Your task to perform on an android device: Search for pizza restaurants on Maps Image 0: 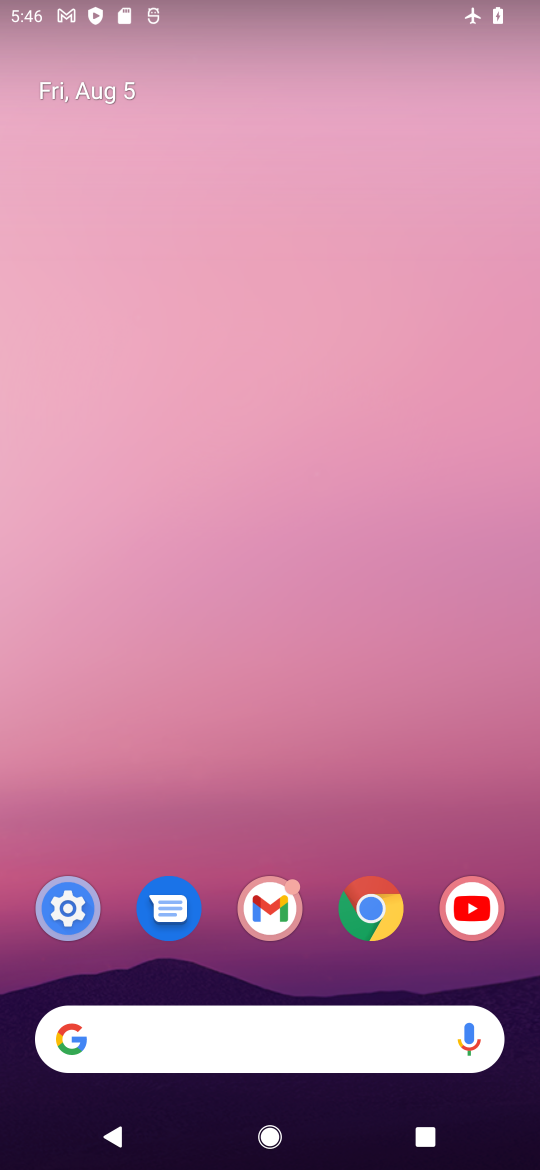
Step 0: drag from (324, 479) to (326, 262)
Your task to perform on an android device: Search for pizza restaurants on Maps Image 1: 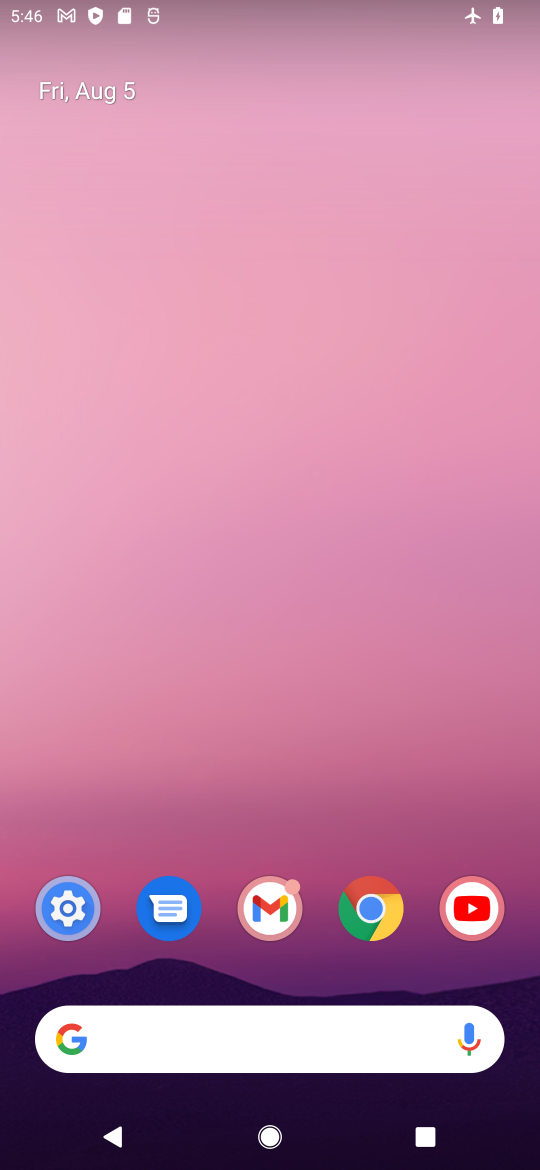
Step 1: drag from (246, 925) to (234, 385)
Your task to perform on an android device: Search for pizza restaurants on Maps Image 2: 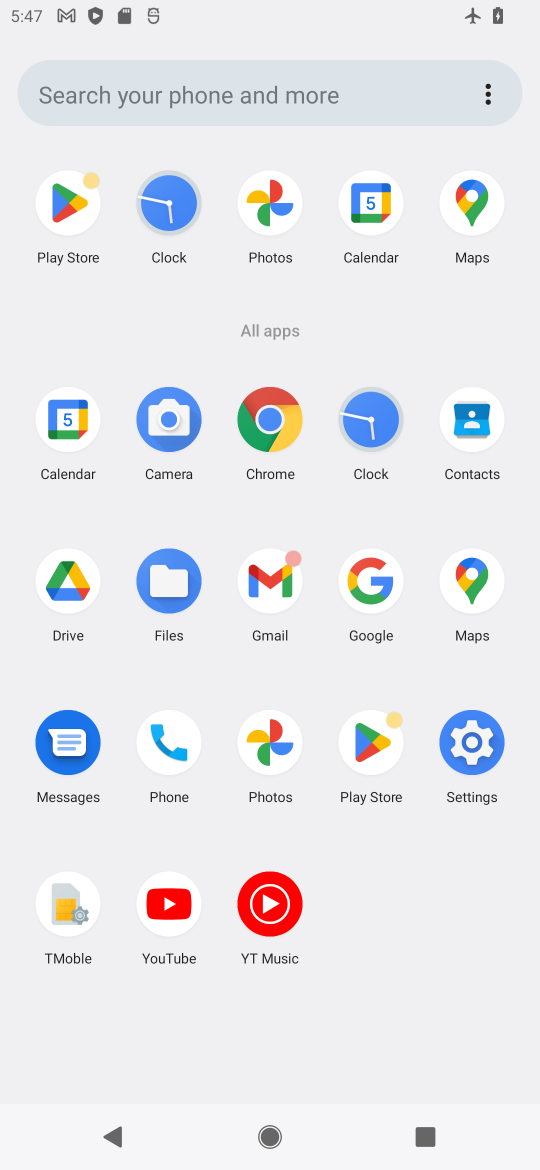
Step 2: click (477, 613)
Your task to perform on an android device: Search for pizza restaurants on Maps Image 3: 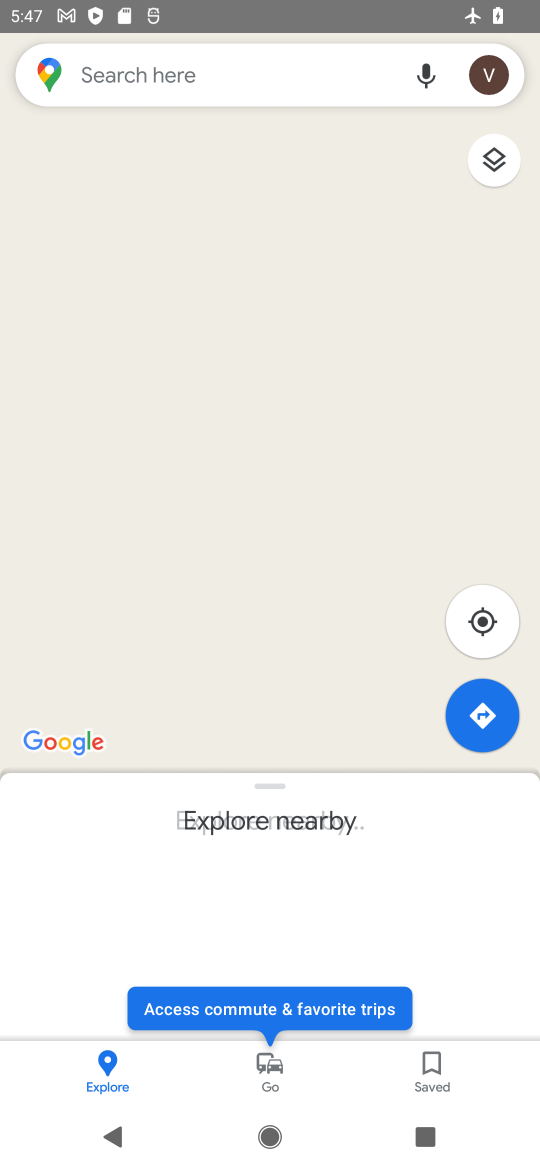
Step 3: click (276, 65)
Your task to perform on an android device: Search for pizza restaurants on Maps Image 4: 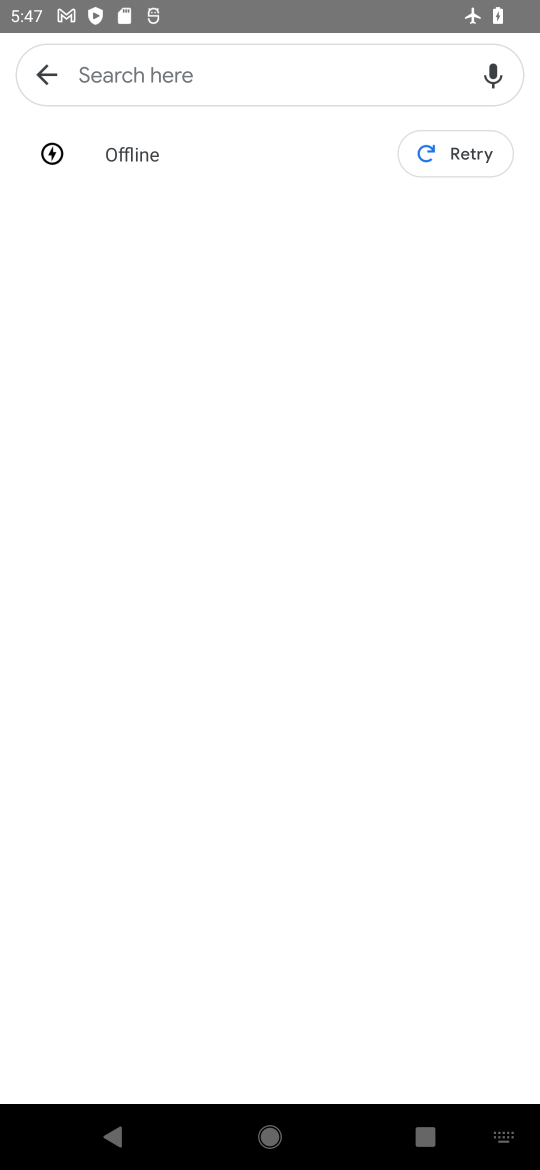
Step 4: type "pizza restaurannts"
Your task to perform on an android device: Search for pizza restaurants on Maps Image 5: 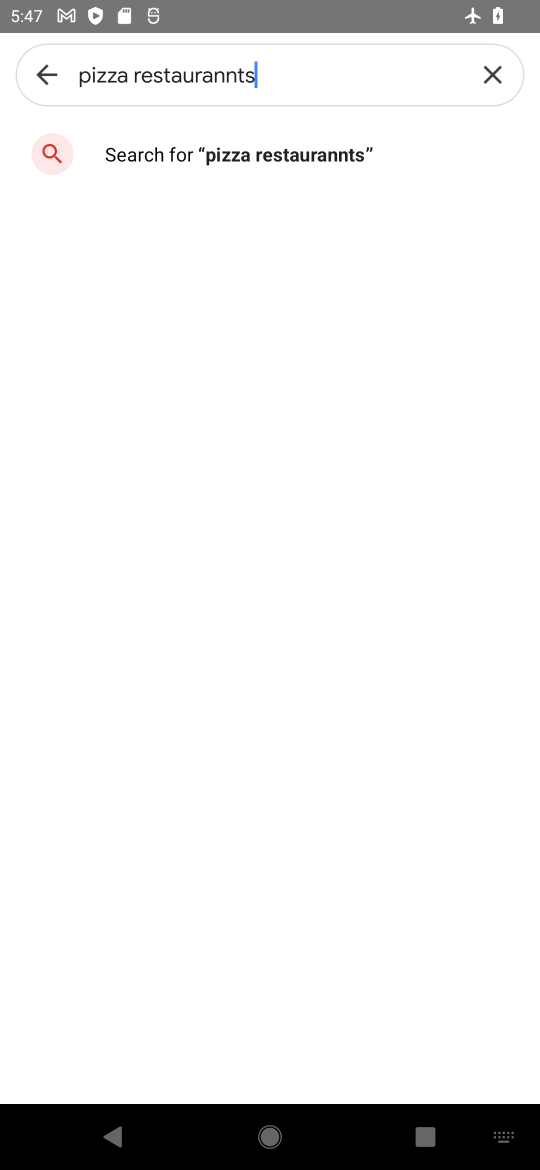
Step 5: task complete